Your task to perform on an android device: Open network settings Image 0: 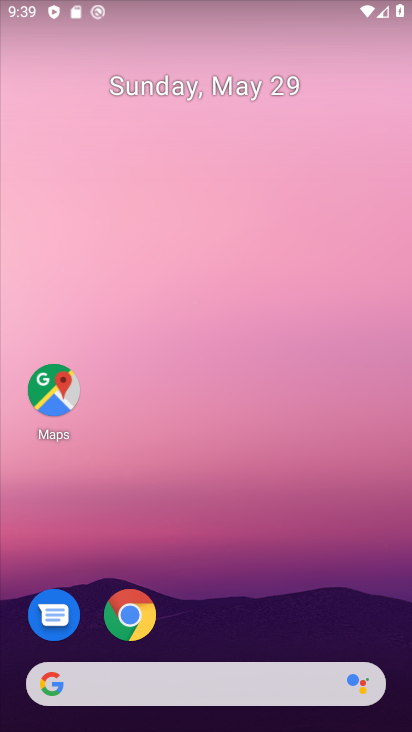
Step 0: drag from (247, 643) to (387, 27)
Your task to perform on an android device: Open network settings Image 1: 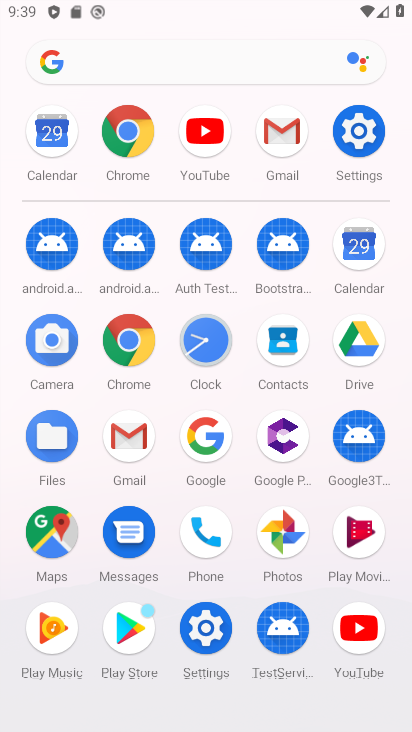
Step 1: click (352, 143)
Your task to perform on an android device: Open network settings Image 2: 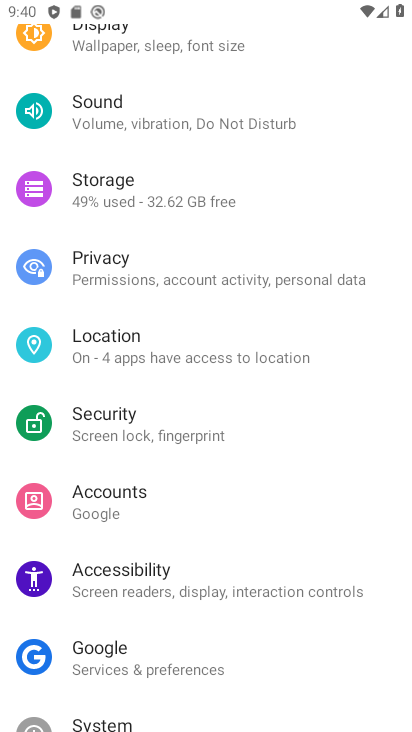
Step 2: drag from (207, 146) to (112, 645)
Your task to perform on an android device: Open network settings Image 3: 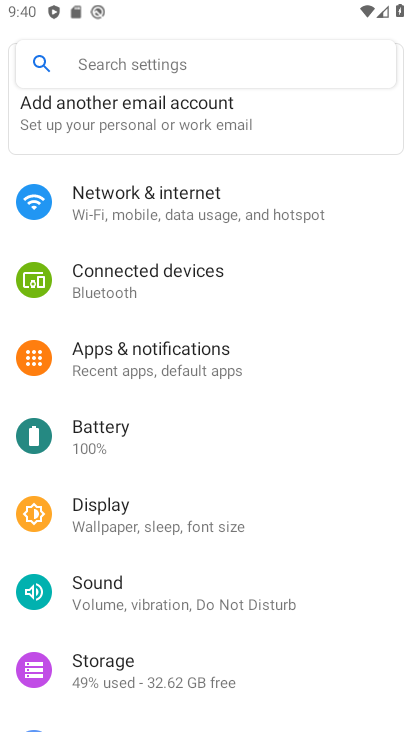
Step 3: click (133, 204)
Your task to perform on an android device: Open network settings Image 4: 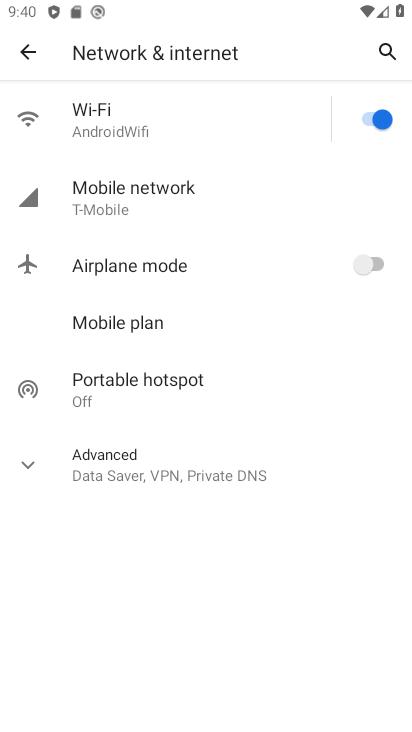
Step 4: click (114, 202)
Your task to perform on an android device: Open network settings Image 5: 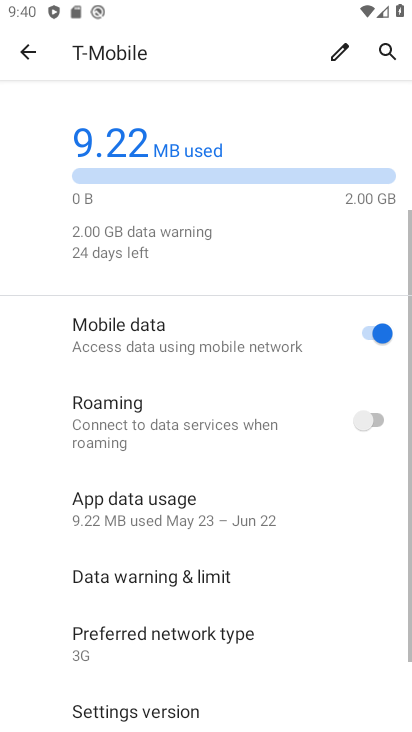
Step 5: task complete